Your task to perform on an android device: turn off sleep mode Image 0: 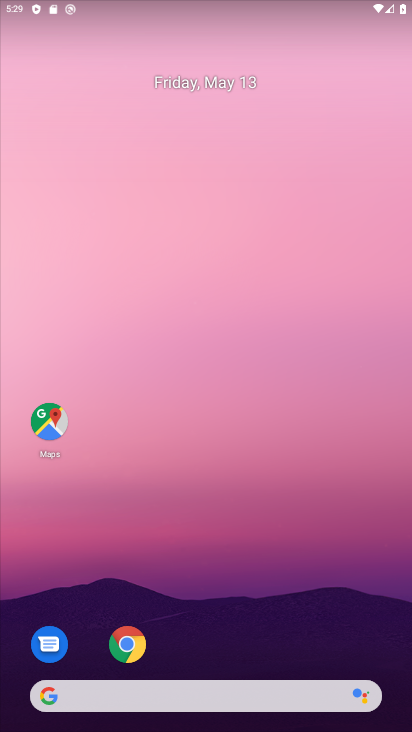
Step 0: drag from (229, 661) to (252, 180)
Your task to perform on an android device: turn off sleep mode Image 1: 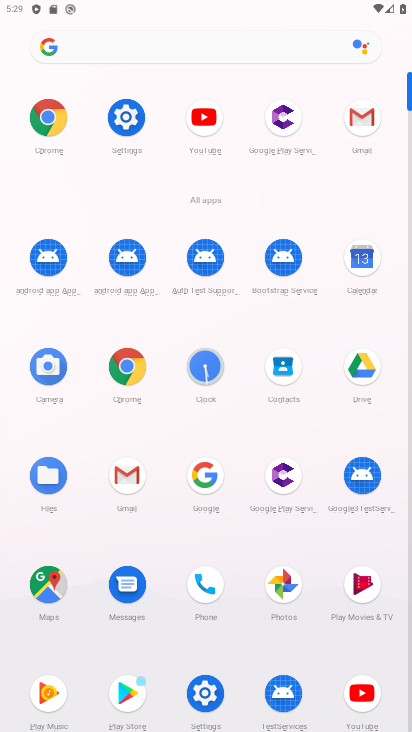
Step 1: click (202, 696)
Your task to perform on an android device: turn off sleep mode Image 2: 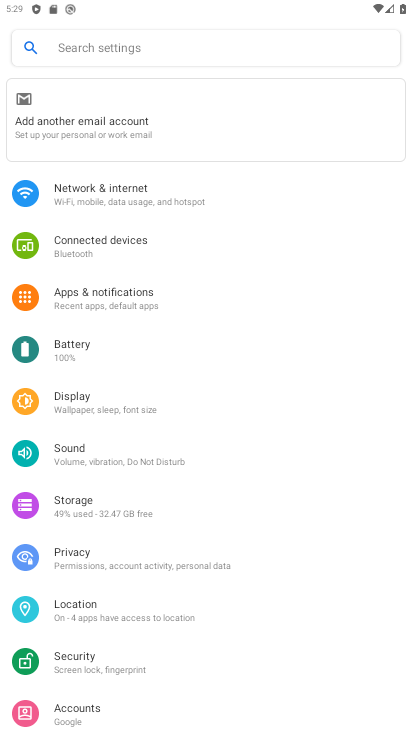
Step 2: click (179, 48)
Your task to perform on an android device: turn off sleep mode Image 3: 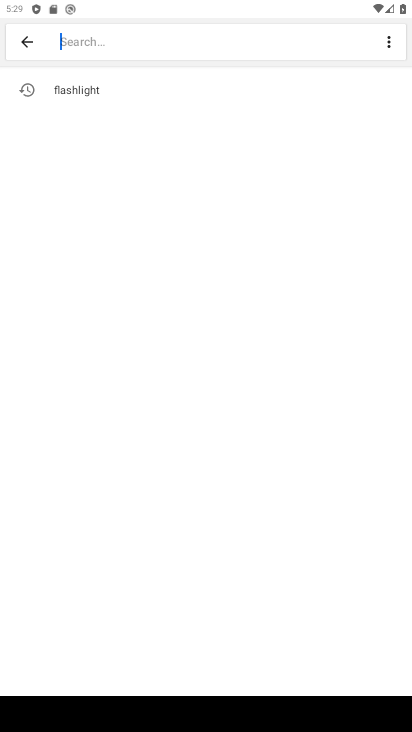
Step 3: type "sleep mode"
Your task to perform on an android device: turn off sleep mode Image 4: 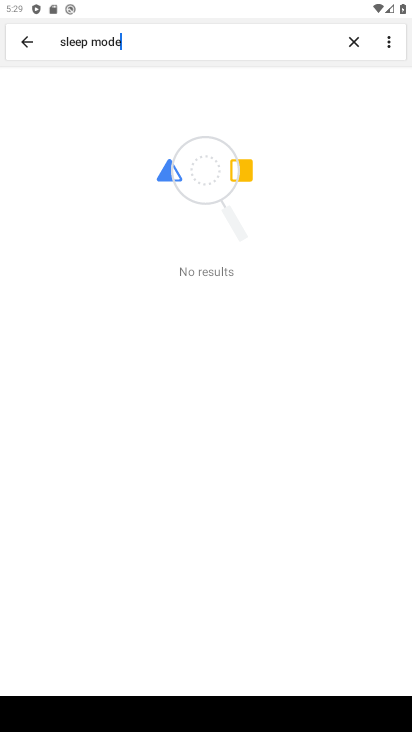
Step 4: task complete